Your task to perform on an android device: Go to Maps Image 0: 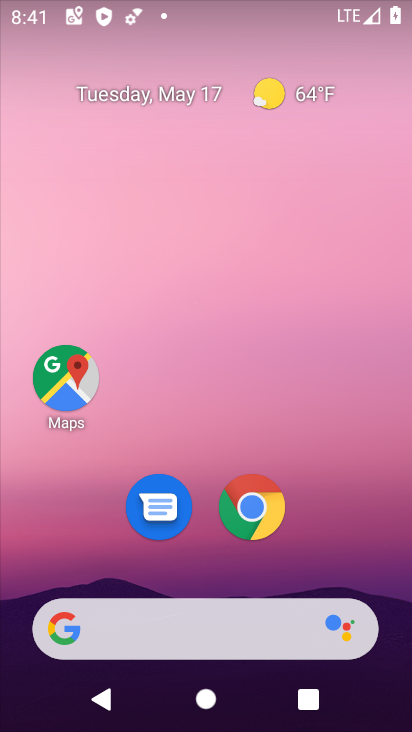
Step 0: click (68, 381)
Your task to perform on an android device: Go to Maps Image 1: 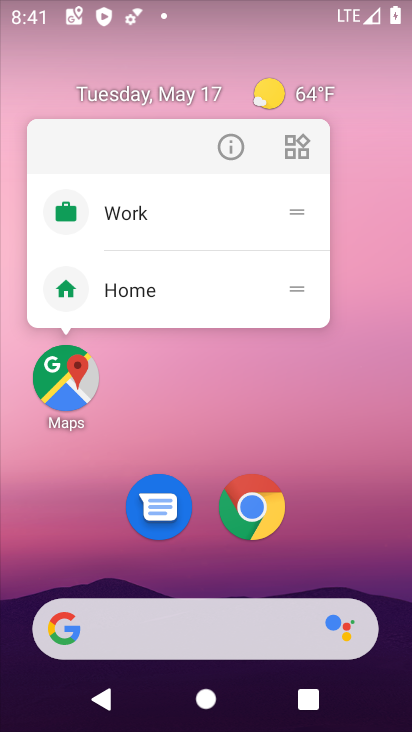
Step 1: click (63, 383)
Your task to perform on an android device: Go to Maps Image 2: 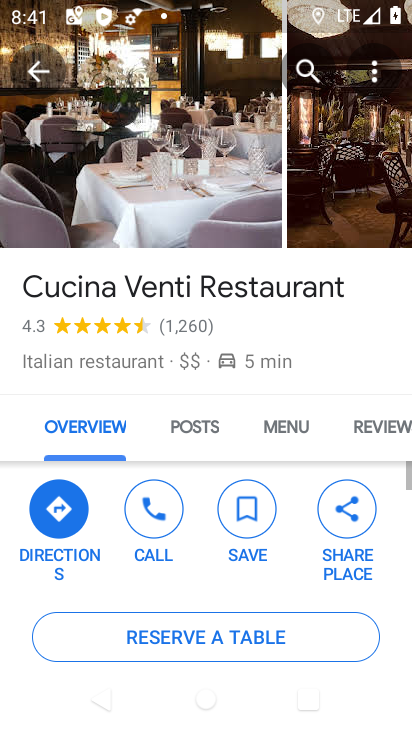
Step 2: click (33, 67)
Your task to perform on an android device: Go to Maps Image 3: 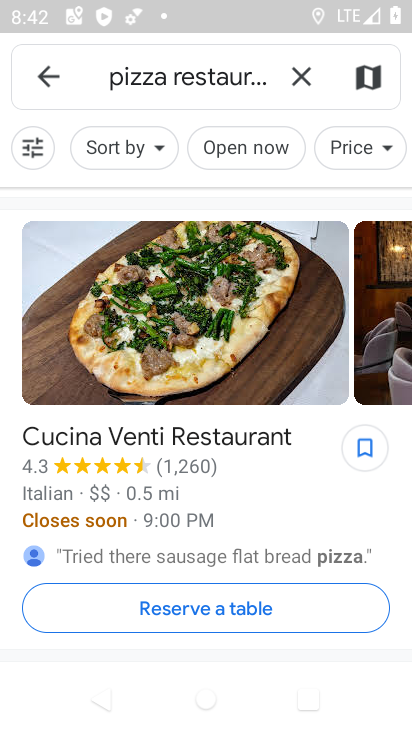
Step 3: click (299, 78)
Your task to perform on an android device: Go to Maps Image 4: 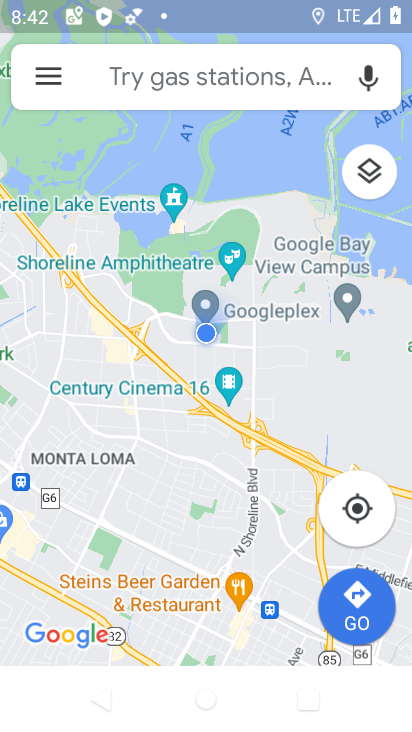
Step 4: task complete